Your task to perform on an android device: add a contact Image 0: 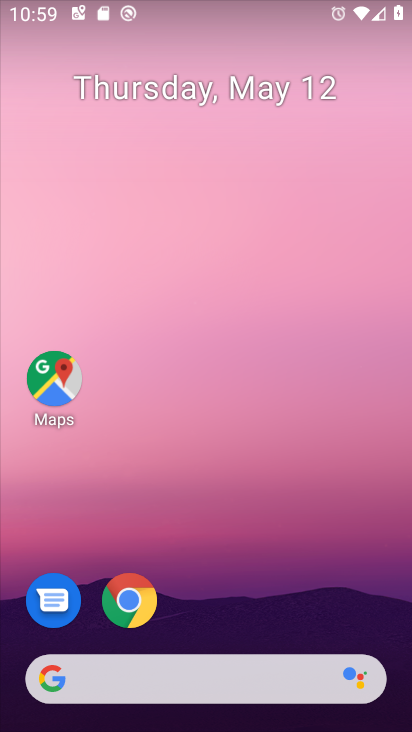
Step 0: drag from (254, 630) to (86, 153)
Your task to perform on an android device: add a contact Image 1: 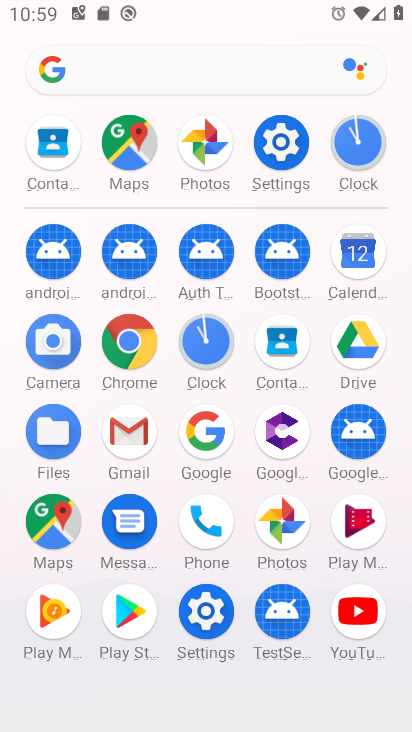
Step 1: click (44, 156)
Your task to perform on an android device: add a contact Image 2: 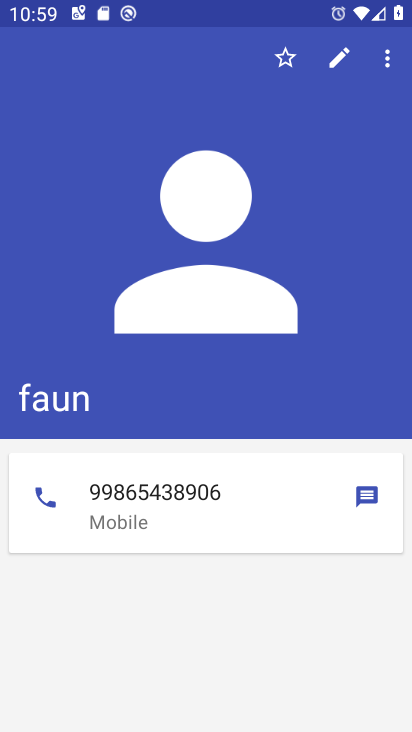
Step 2: press back button
Your task to perform on an android device: add a contact Image 3: 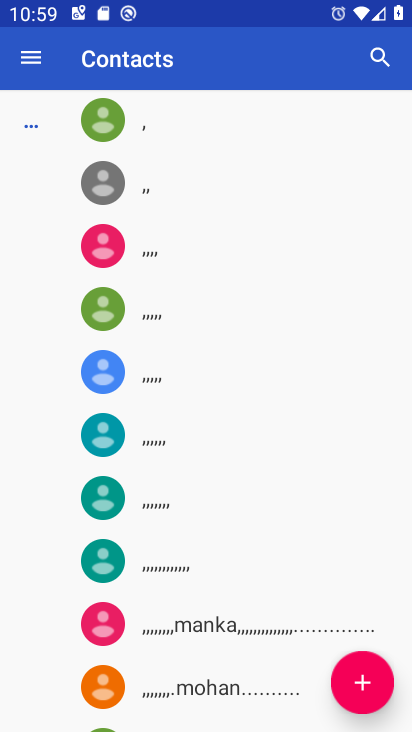
Step 3: click (372, 683)
Your task to perform on an android device: add a contact Image 4: 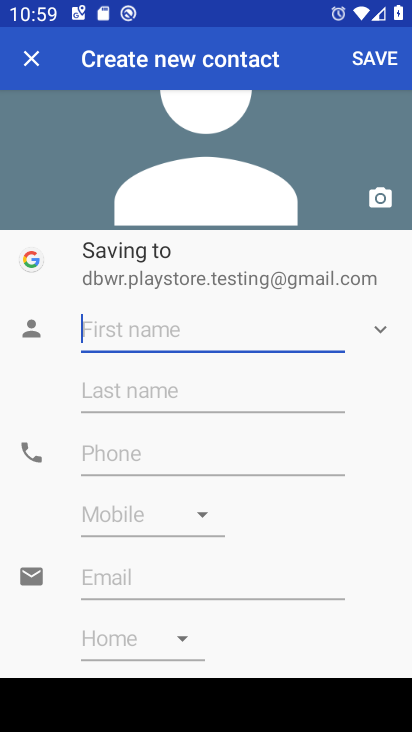
Step 4: click (203, 338)
Your task to perform on an android device: add a contact Image 5: 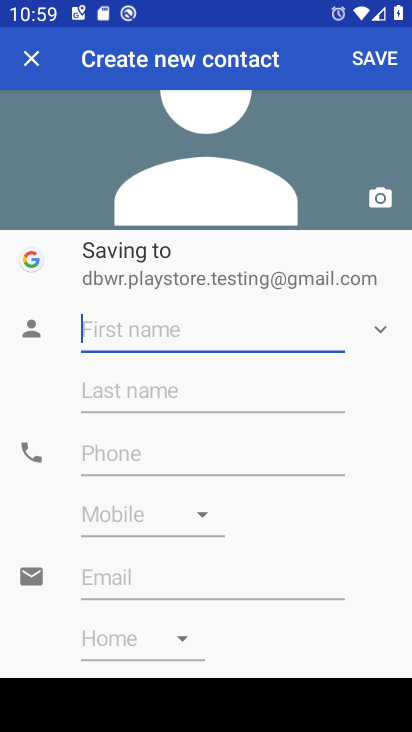
Step 5: type "lag"
Your task to perform on an android device: add a contact Image 6: 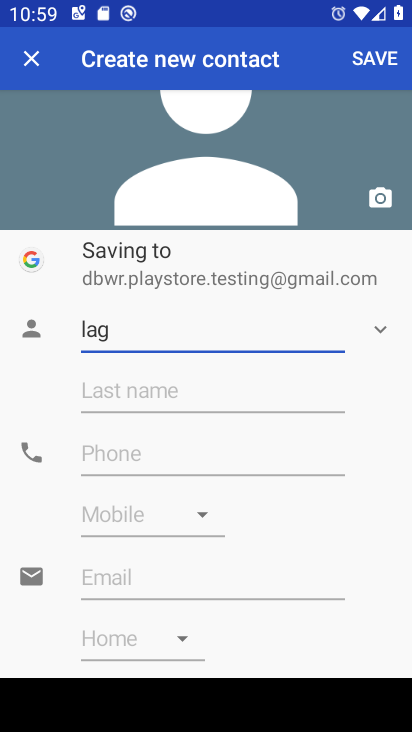
Step 6: click (172, 471)
Your task to perform on an android device: add a contact Image 7: 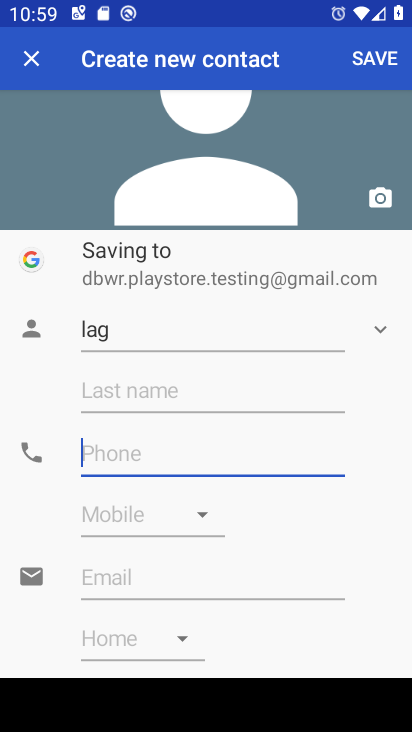
Step 7: type "0987654321"
Your task to perform on an android device: add a contact Image 8: 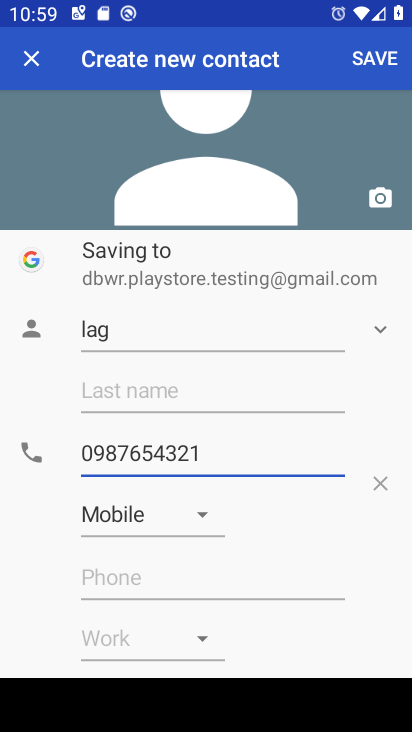
Step 8: click (373, 68)
Your task to perform on an android device: add a contact Image 9: 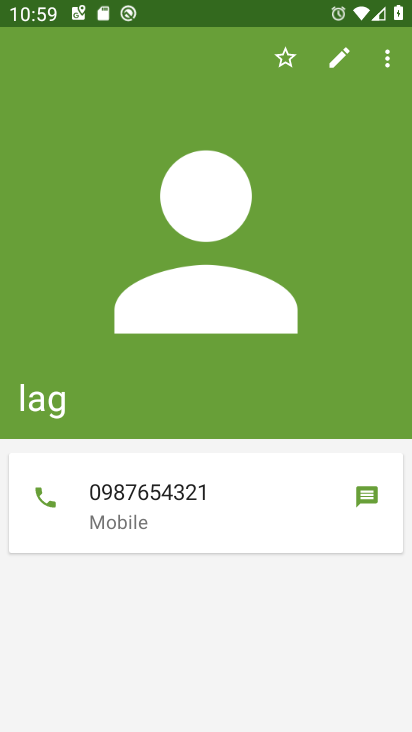
Step 9: task complete